Your task to perform on an android device: turn off airplane mode Image 0: 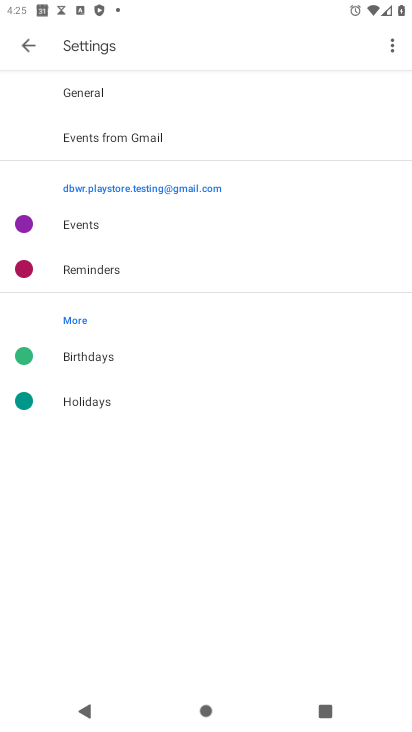
Step 0: press home button
Your task to perform on an android device: turn off airplane mode Image 1: 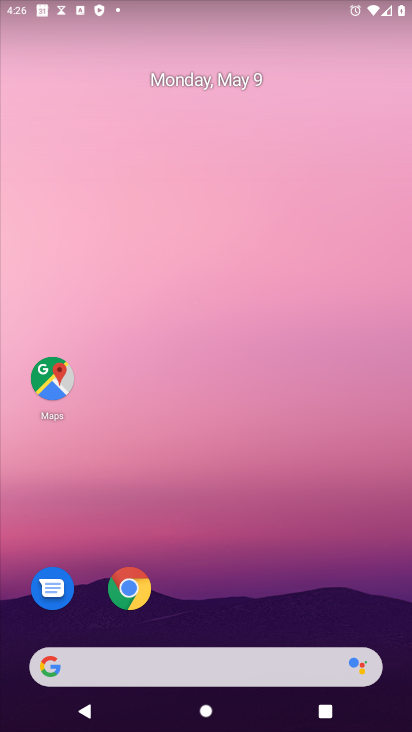
Step 1: drag from (240, 508) to (238, 21)
Your task to perform on an android device: turn off airplane mode Image 2: 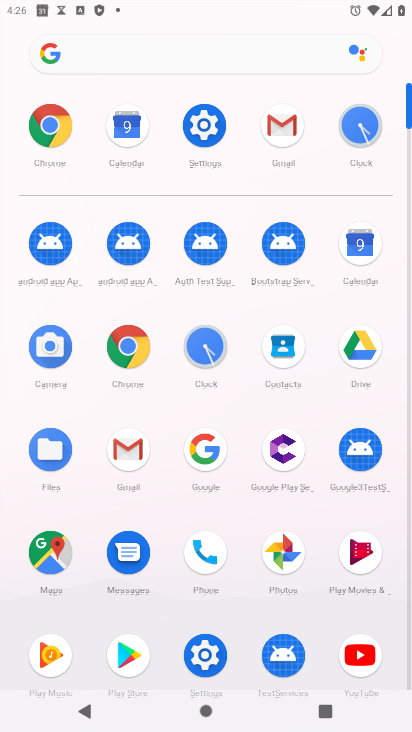
Step 2: click (199, 138)
Your task to perform on an android device: turn off airplane mode Image 3: 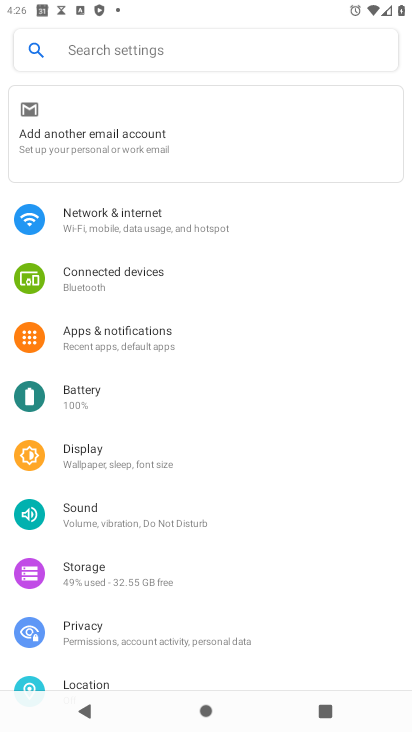
Step 3: click (143, 233)
Your task to perform on an android device: turn off airplane mode Image 4: 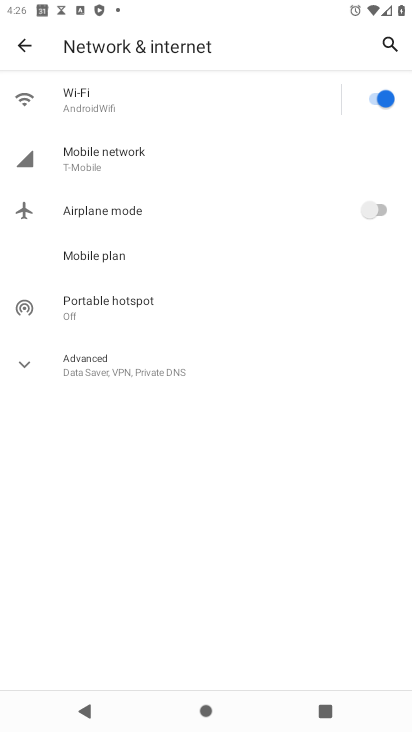
Step 4: task complete